Your task to perform on an android device: set an alarm Image 0: 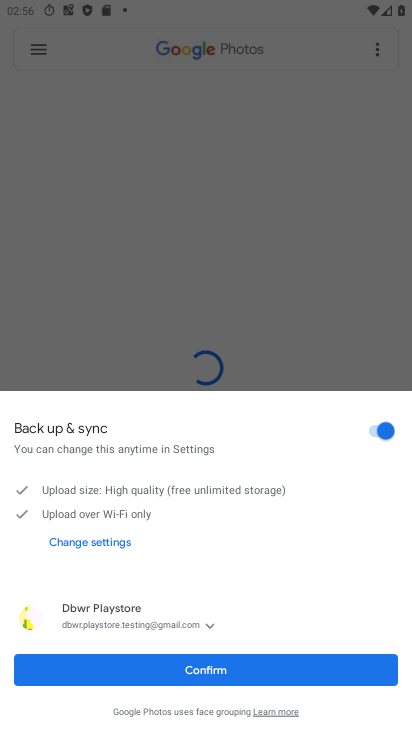
Step 0: press home button
Your task to perform on an android device: set an alarm Image 1: 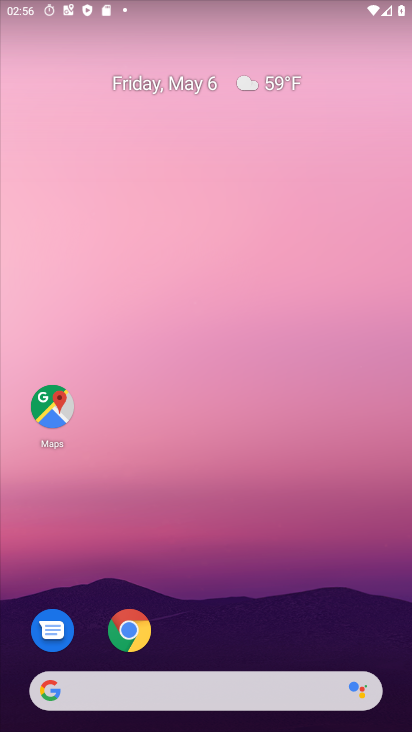
Step 1: drag from (239, 607) to (239, 240)
Your task to perform on an android device: set an alarm Image 2: 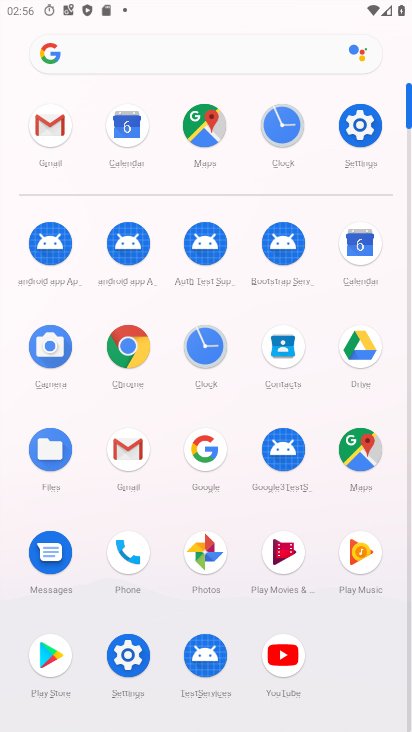
Step 2: click (298, 139)
Your task to perform on an android device: set an alarm Image 3: 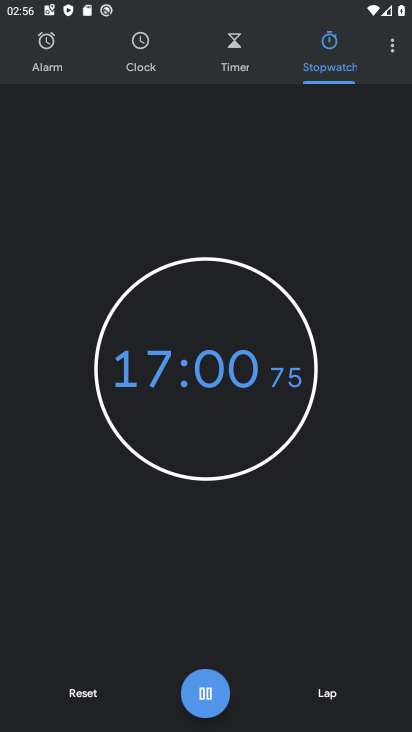
Step 3: click (47, 60)
Your task to perform on an android device: set an alarm Image 4: 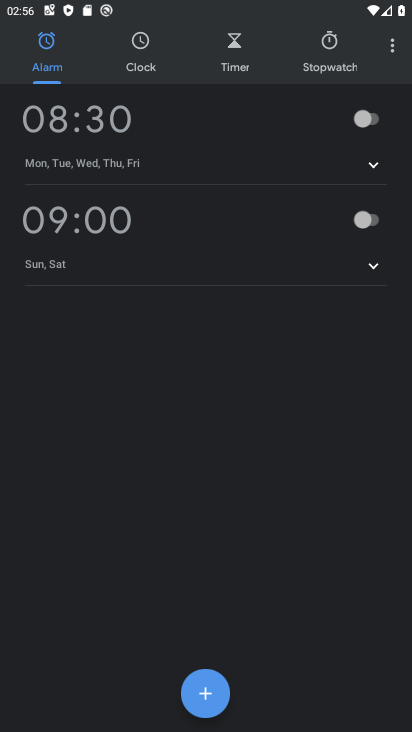
Step 4: click (374, 120)
Your task to perform on an android device: set an alarm Image 5: 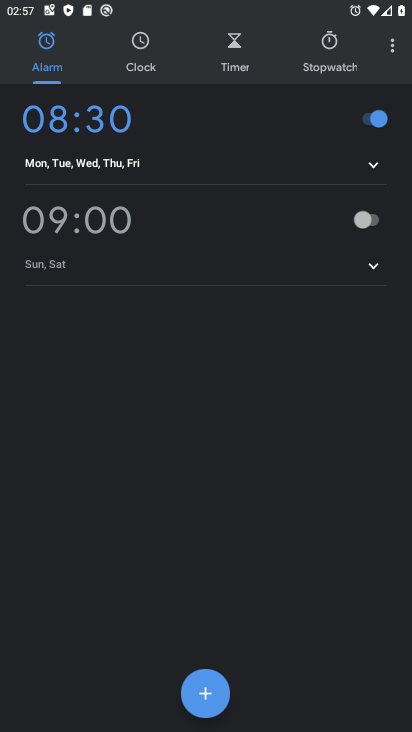
Step 5: task complete